Your task to perform on an android device: see sites visited before in the chrome app Image 0: 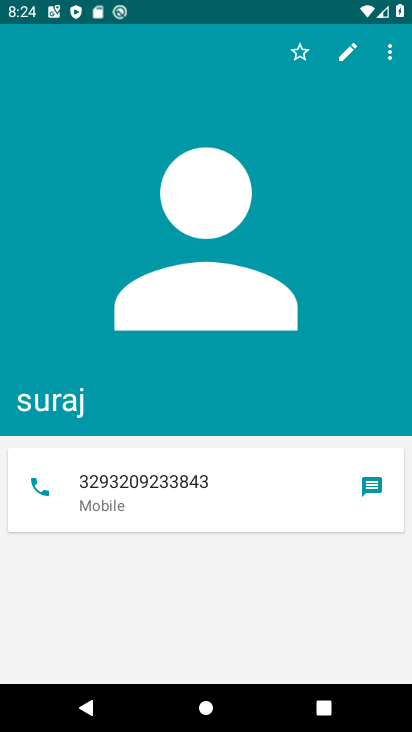
Step 0: press home button
Your task to perform on an android device: see sites visited before in the chrome app Image 1: 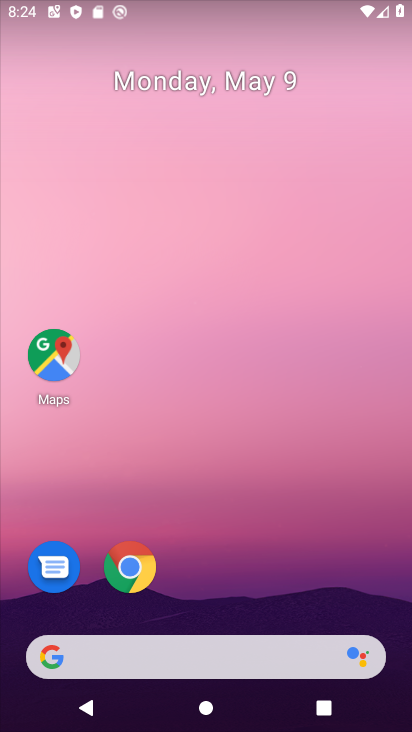
Step 1: drag from (357, 601) to (320, 193)
Your task to perform on an android device: see sites visited before in the chrome app Image 2: 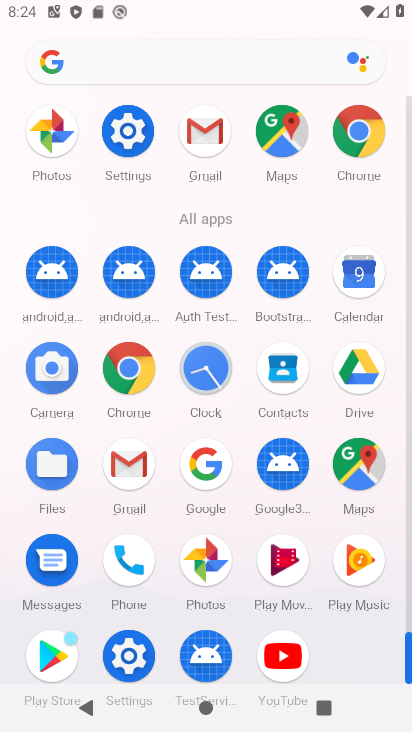
Step 2: click (137, 377)
Your task to perform on an android device: see sites visited before in the chrome app Image 3: 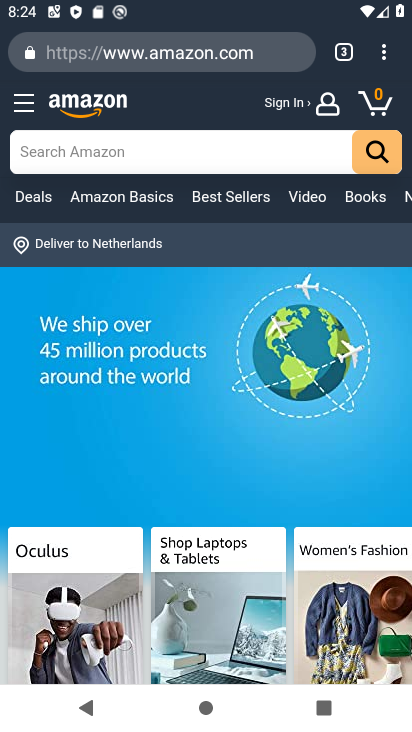
Step 3: task complete